Your task to perform on an android device: change timer sound Image 0: 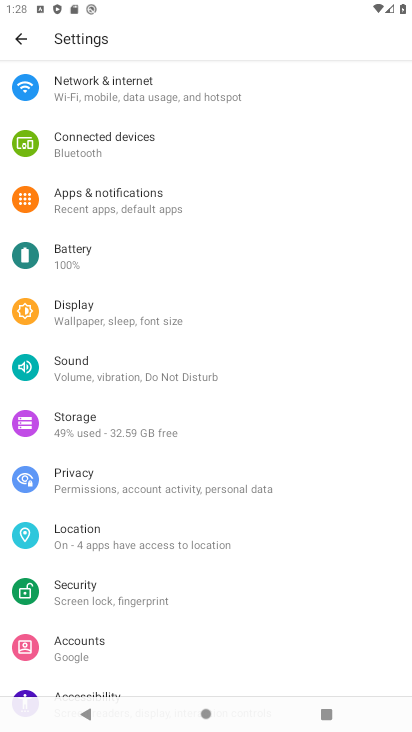
Step 0: press home button
Your task to perform on an android device: change timer sound Image 1: 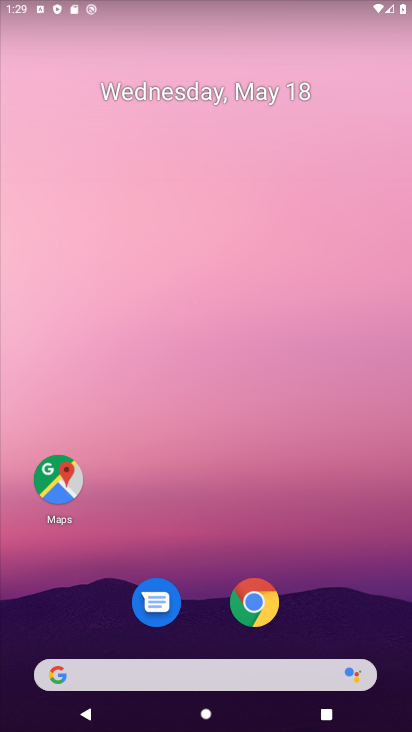
Step 1: drag from (161, 632) to (171, 266)
Your task to perform on an android device: change timer sound Image 2: 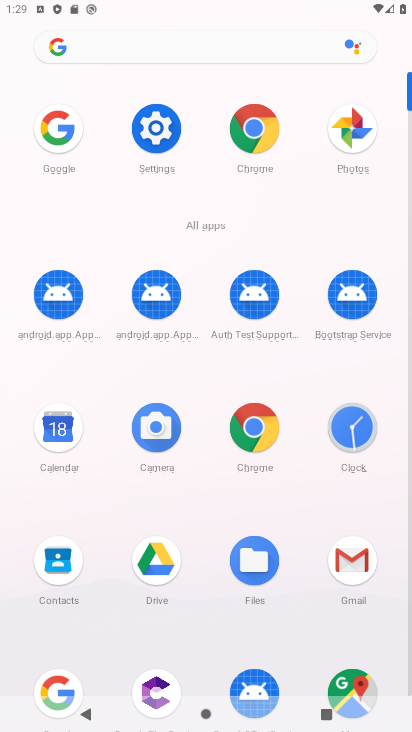
Step 2: click (348, 427)
Your task to perform on an android device: change timer sound Image 3: 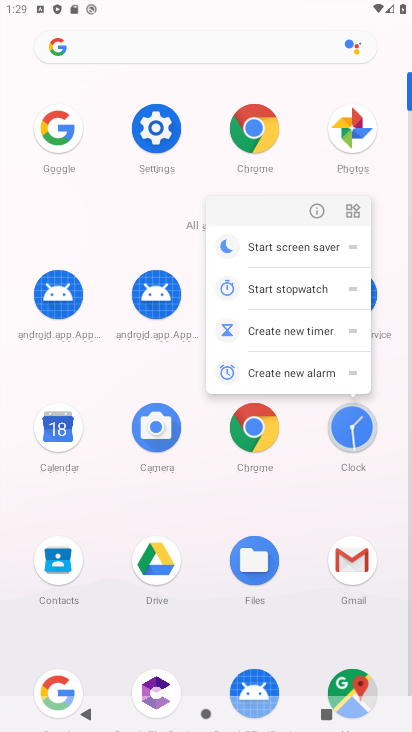
Step 3: click (334, 422)
Your task to perform on an android device: change timer sound Image 4: 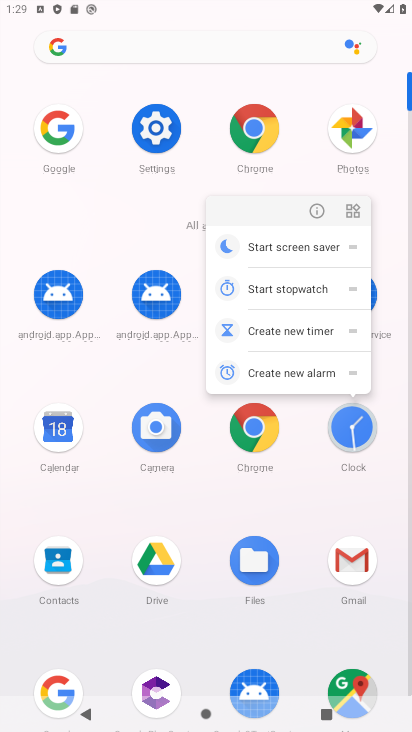
Step 4: click (334, 422)
Your task to perform on an android device: change timer sound Image 5: 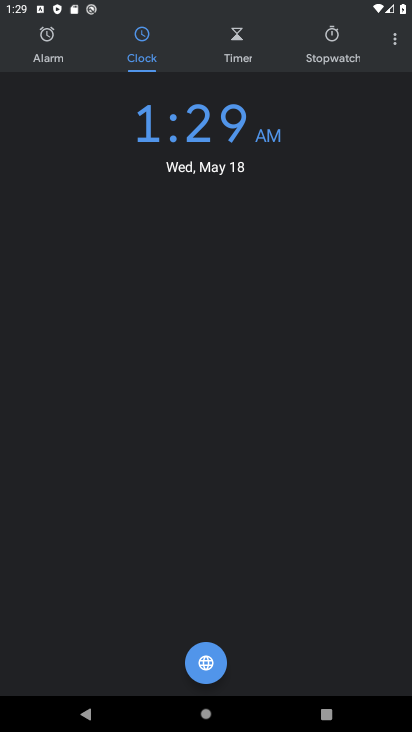
Step 5: click (398, 41)
Your task to perform on an android device: change timer sound Image 6: 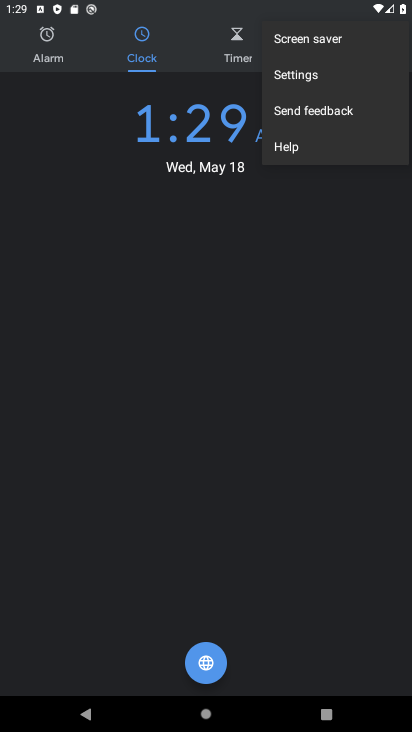
Step 6: click (307, 74)
Your task to perform on an android device: change timer sound Image 7: 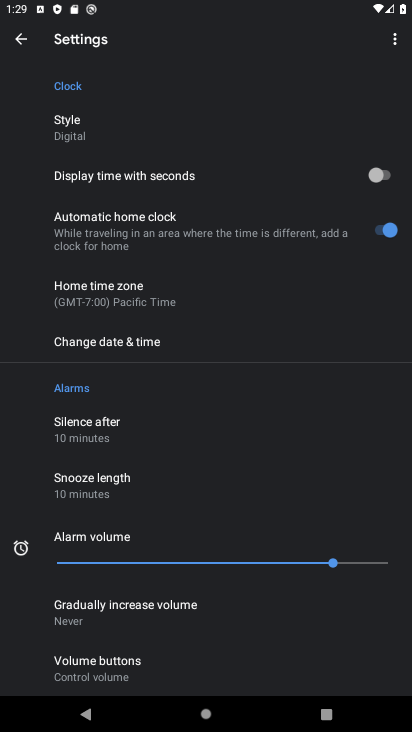
Step 7: drag from (167, 621) to (172, 247)
Your task to perform on an android device: change timer sound Image 8: 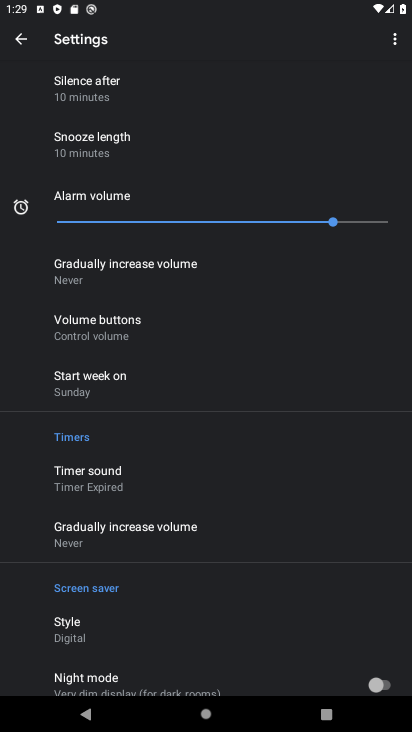
Step 8: click (117, 479)
Your task to perform on an android device: change timer sound Image 9: 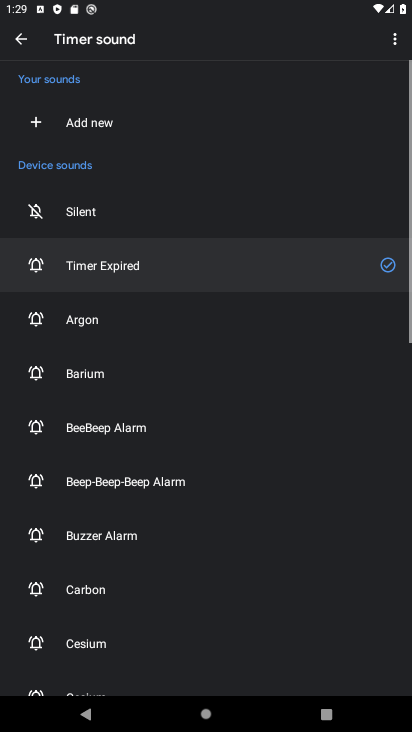
Step 9: click (128, 588)
Your task to perform on an android device: change timer sound Image 10: 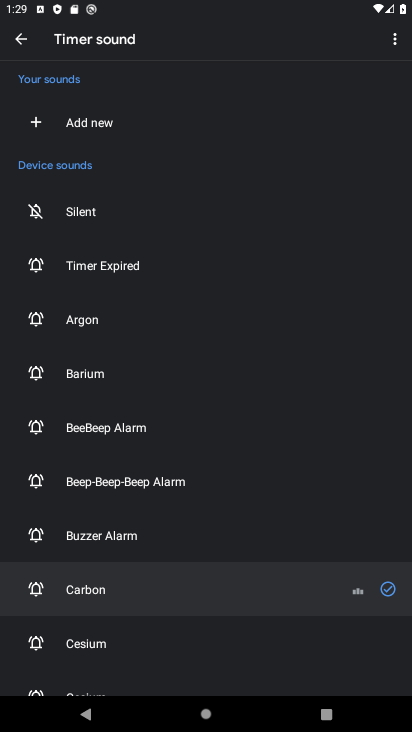
Step 10: task complete